Your task to perform on an android device: Clear the cart on target. Search for "usb-b" on target, select the first entry, add it to the cart, then select checkout. Image 0: 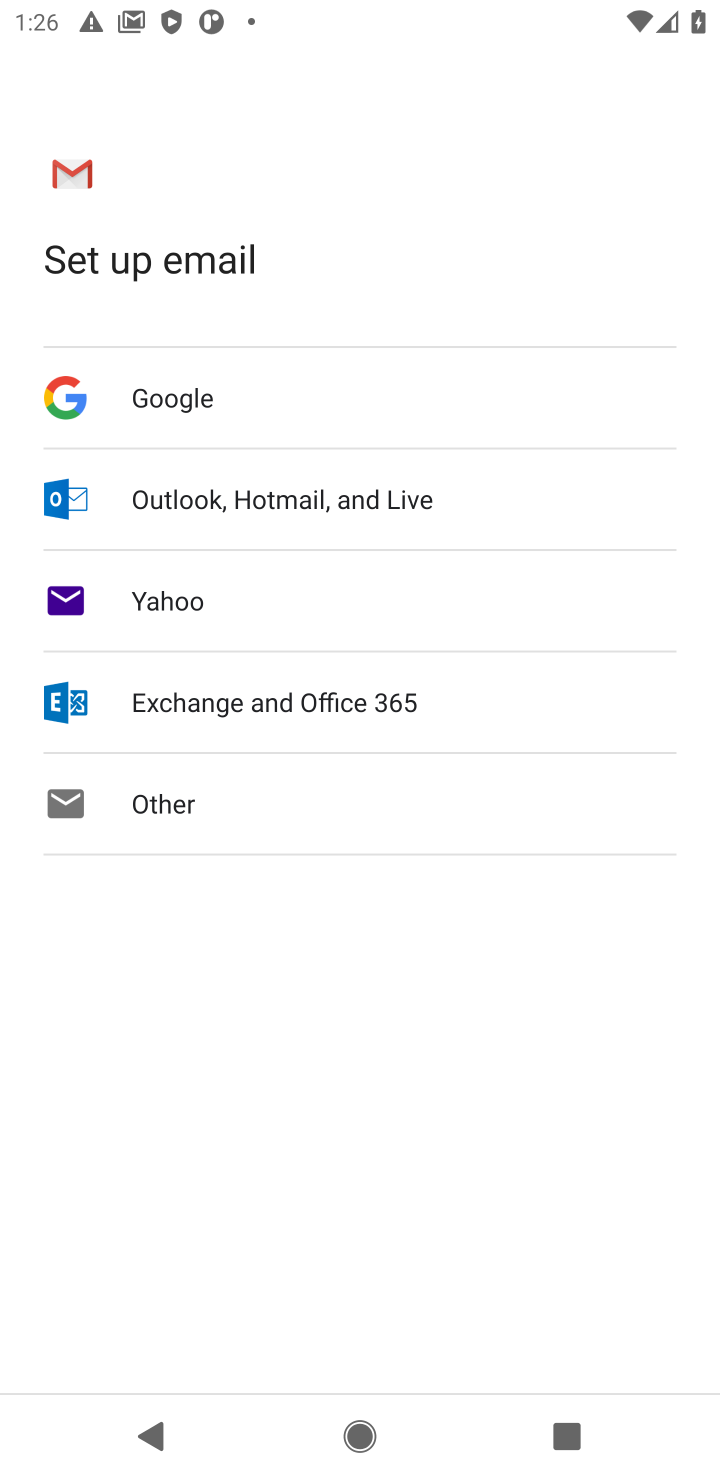
Step 0: press home button
Your task to perform on an android device: Clear the cart on target. Search for "usb-b" on target, select the first entry, add it to the cart, then select checkout. Image 1: 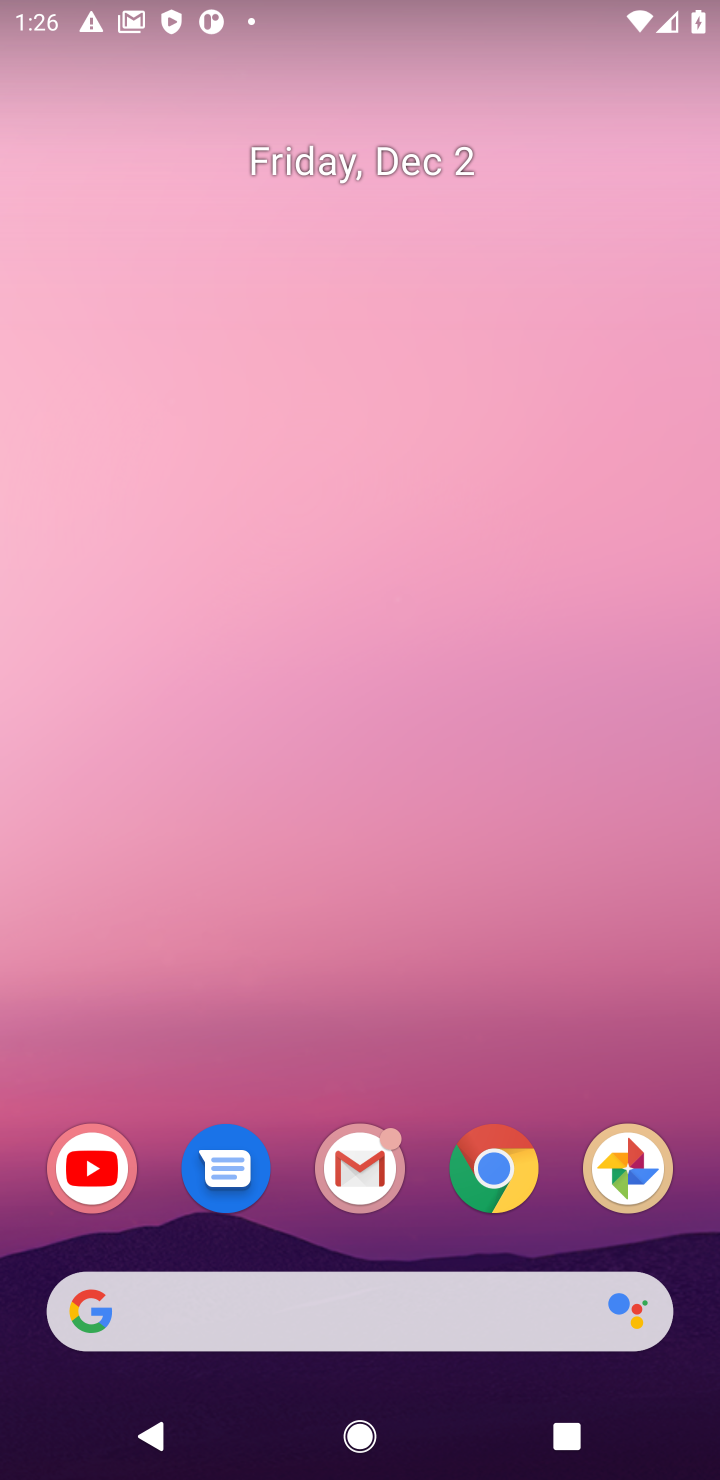
Step 1: click (500, 1179)
Your task to perform on an android device: Clear the cart on target. Search for "usb-b" on target, select the first entry, add it to the cart, then select checkout. Image 2: 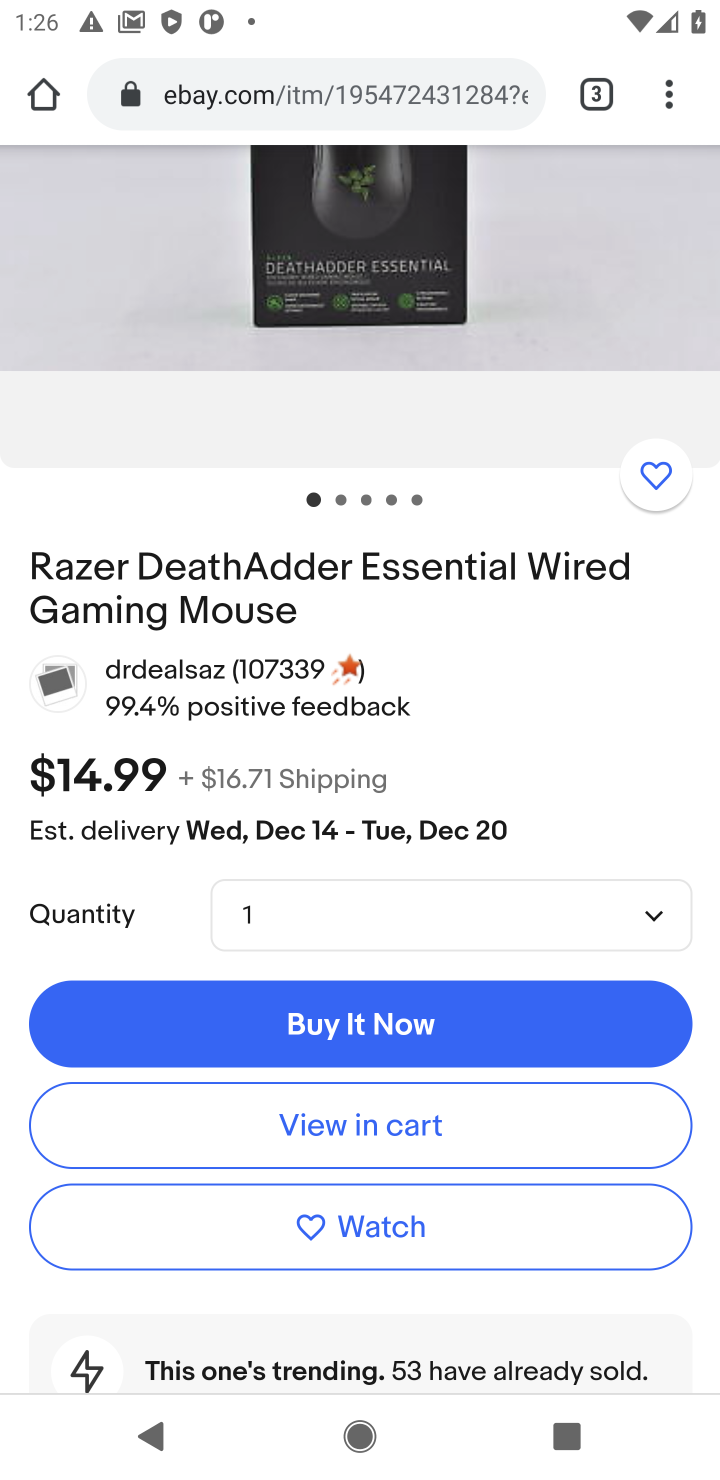
Step 2: click (288, 95)
Your task to perform on an android device: Clear the cart on target. Search for "usb-b" on target, select the first entry, add it to the cart, then select checkout. Image 3: 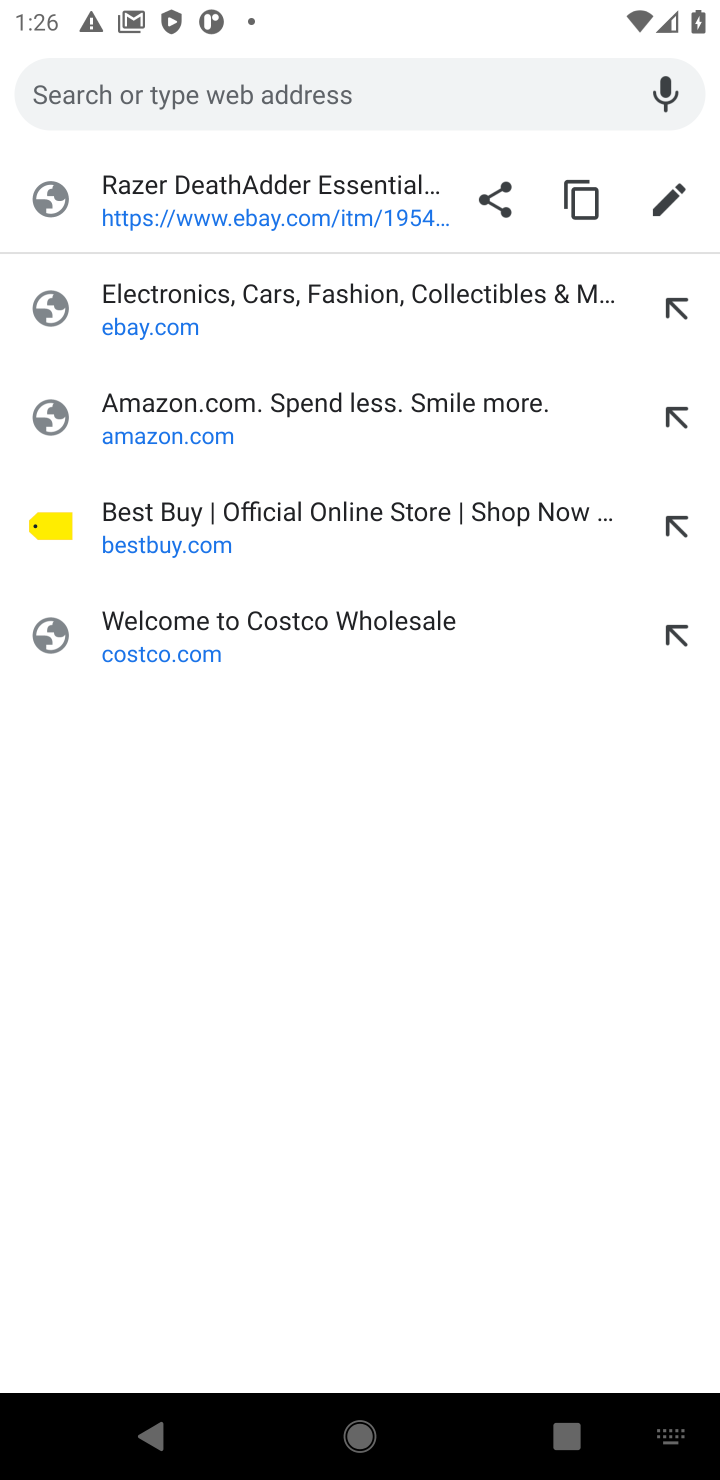
Step 3: type "target.com"
Your task to perform on an android device: Clear the cart on target. Search for "usb-b" on target, select the first entry, add it to the cart, then select checkout. Image 4: 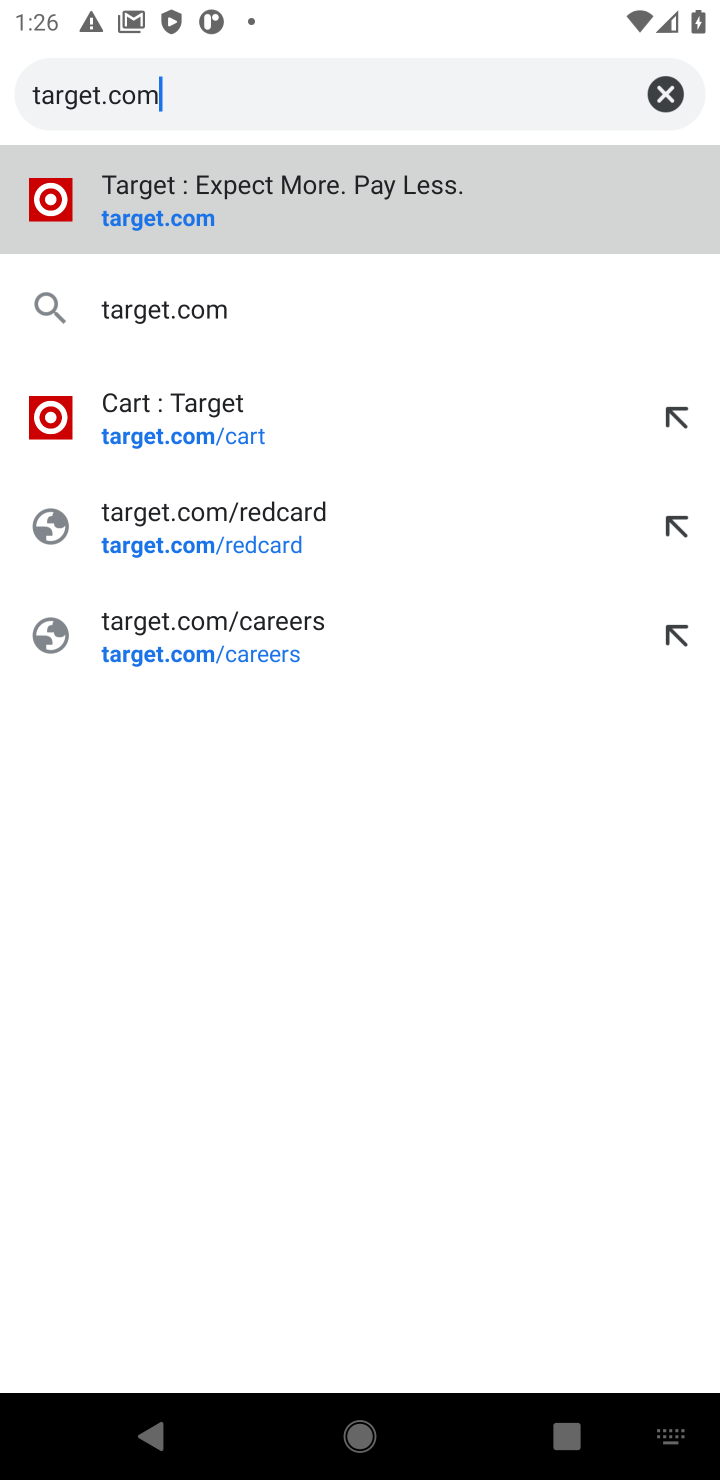
Step 4: click (137, 214)
Your task to perform on an android device: Clear the cart on target. Search for "usb-b" on target, select the first entry, add it to the cart, then select checkout. Image 5: 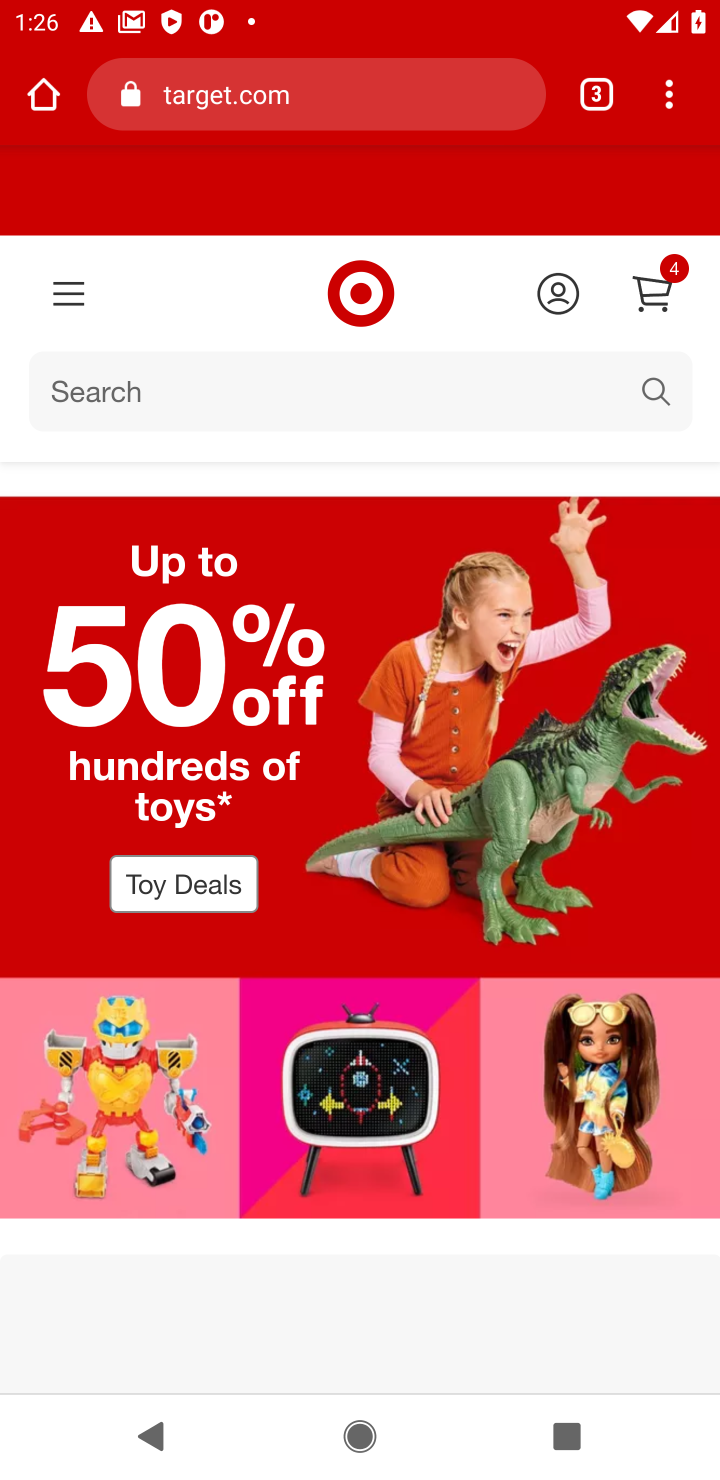
Step 5: click (661, 300)
Your task to perform on an android device: Clear the cart on target. Search for "usb-b" on target, select the first entry, add it to the cart, then select checkout. Image 6: 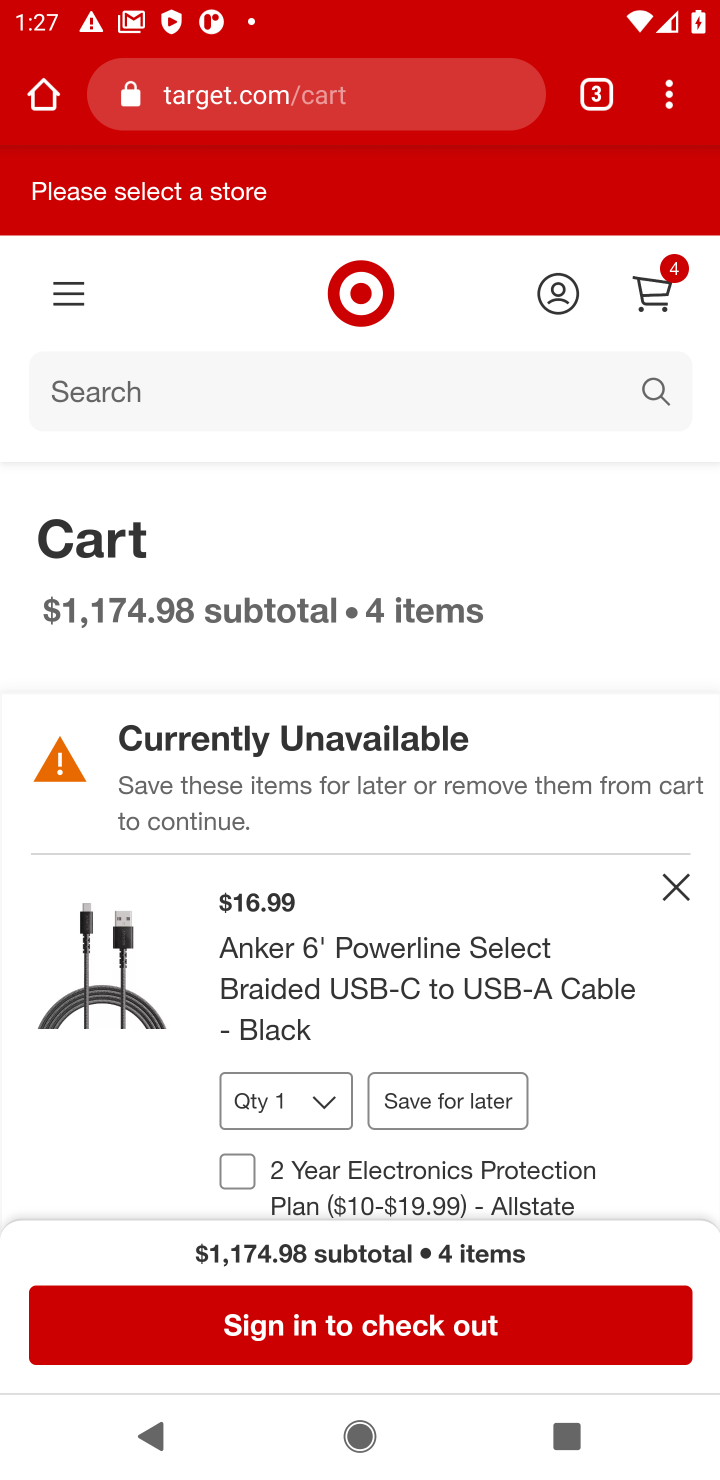
Step 6: click (685, 892)
Your task to perform on an android device: Clear the cart on target. Search for "usb-b" on target, select the first entry, add it to the cart, then select checkout. Image 7: 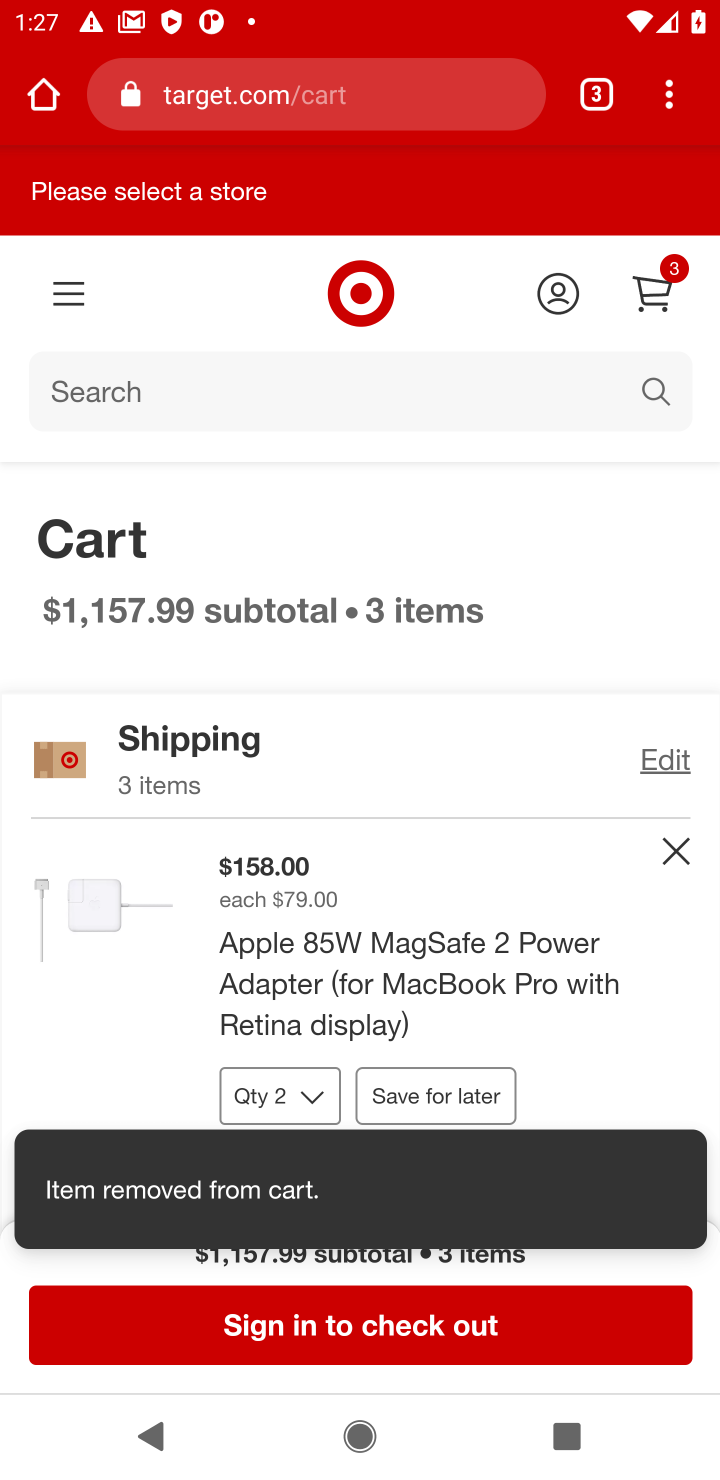
Step 7: click (682, 861)
Your task to perform on an android device: Clear the cart on target. Search for "usb-b" on target, select the first entry, add it to the cart, then select checkout. Image 8: 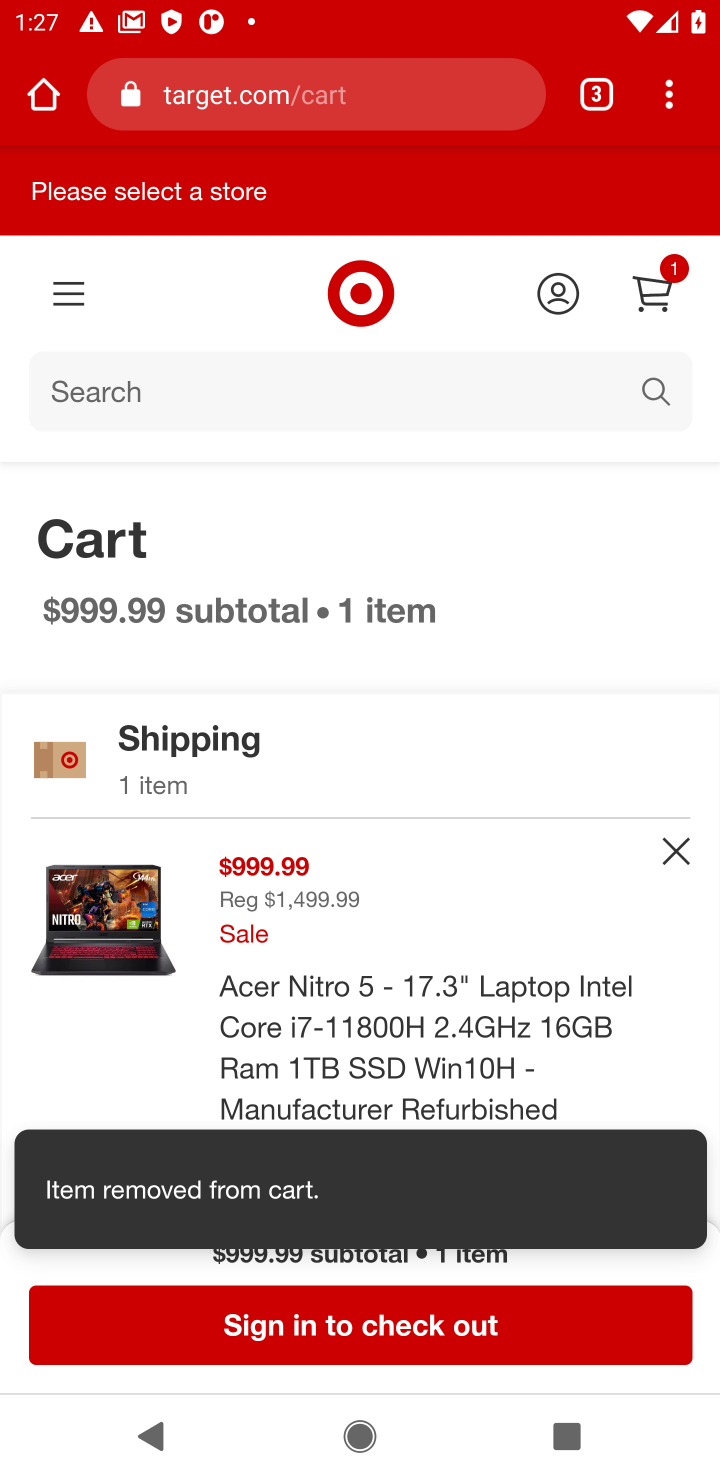
Step 8: click (682, 861)
Your task to perform on an android device: Clear the cart on target. Search for "usb-b" on target, select the first entry, add it to the cart, then select checkout. Image 9: 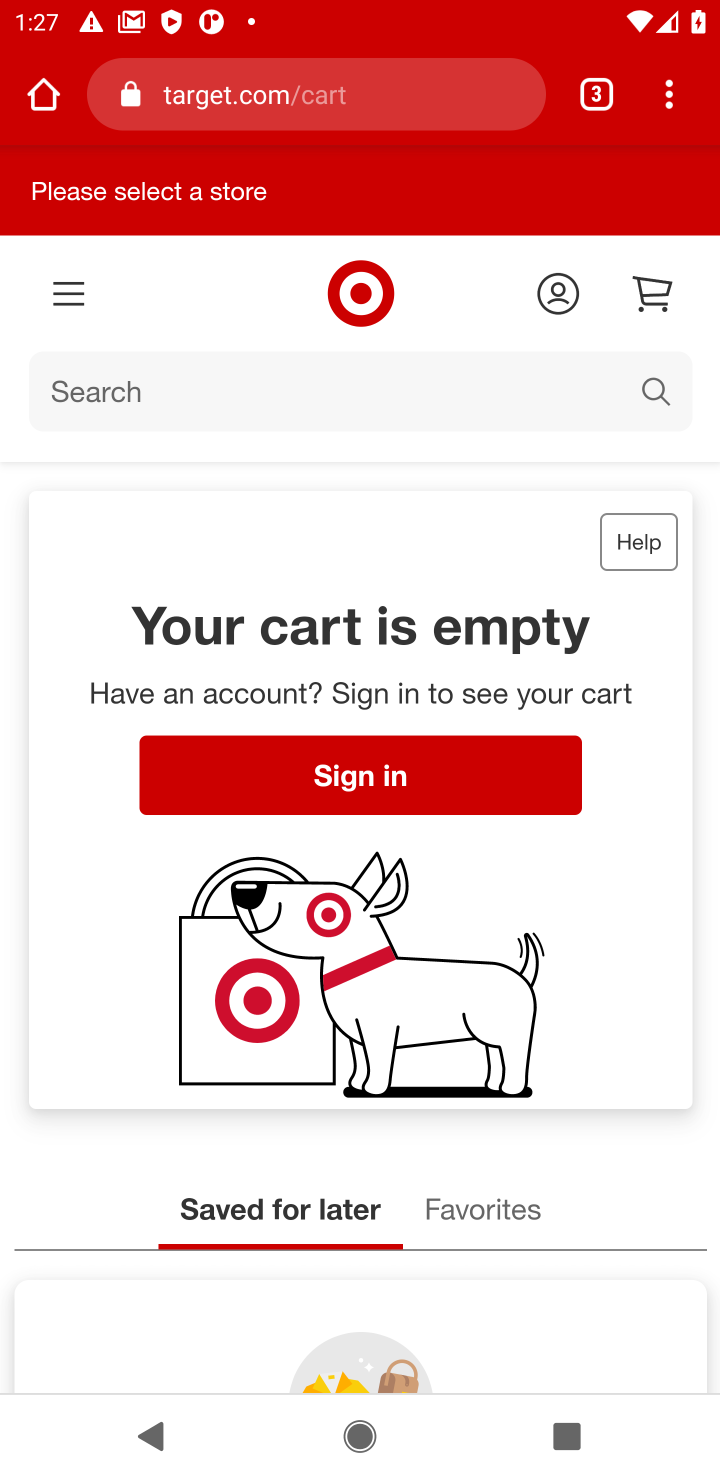
Step 9: click (104, 395)
Your task to perform on an android device: Clear the cart on target. Search for "usb-b" on target, select the first entry, add it to the cart, then select checkout. Image 10: 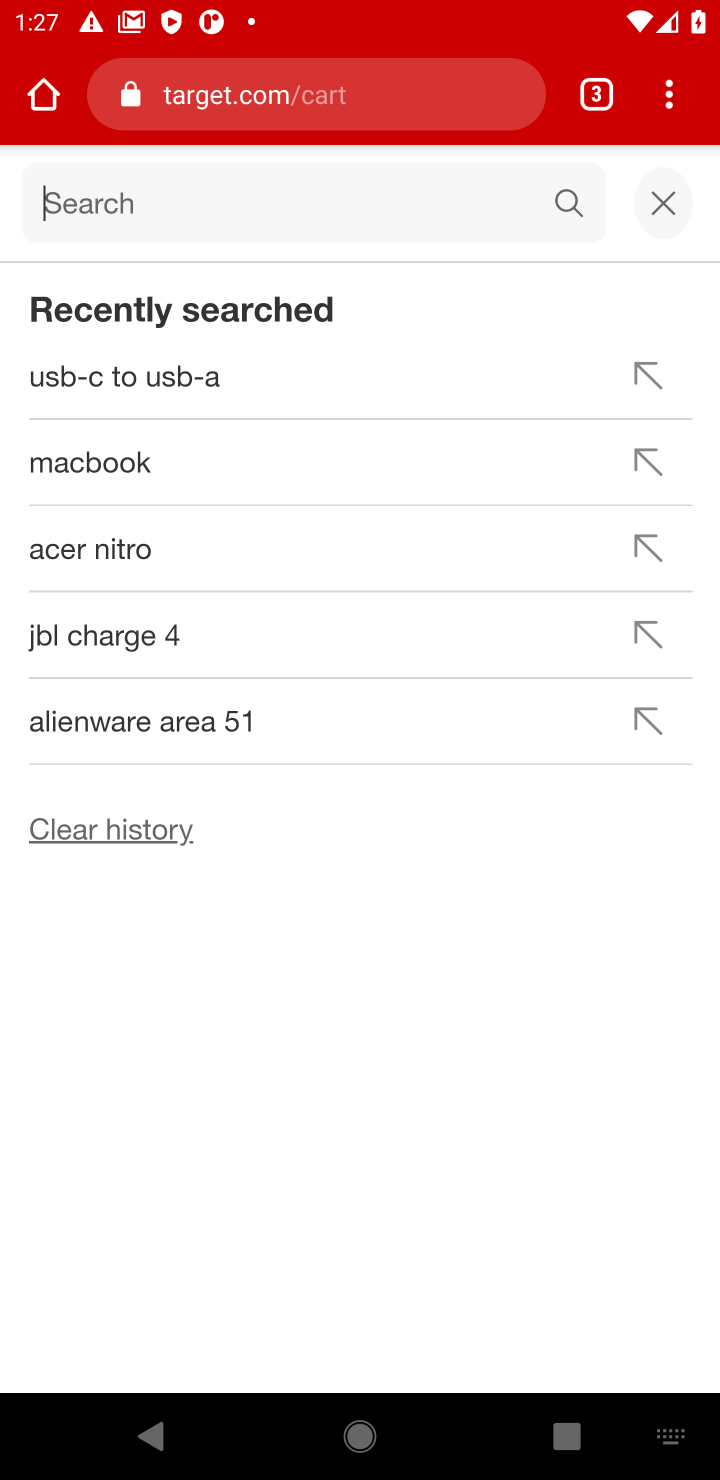
Step 10: type "usb-b"
Your task to perform on an android device: Clear the cart on target. Search for "usb-b" on target, select the first entry, add it to the cart, then select checkout. Image 11: 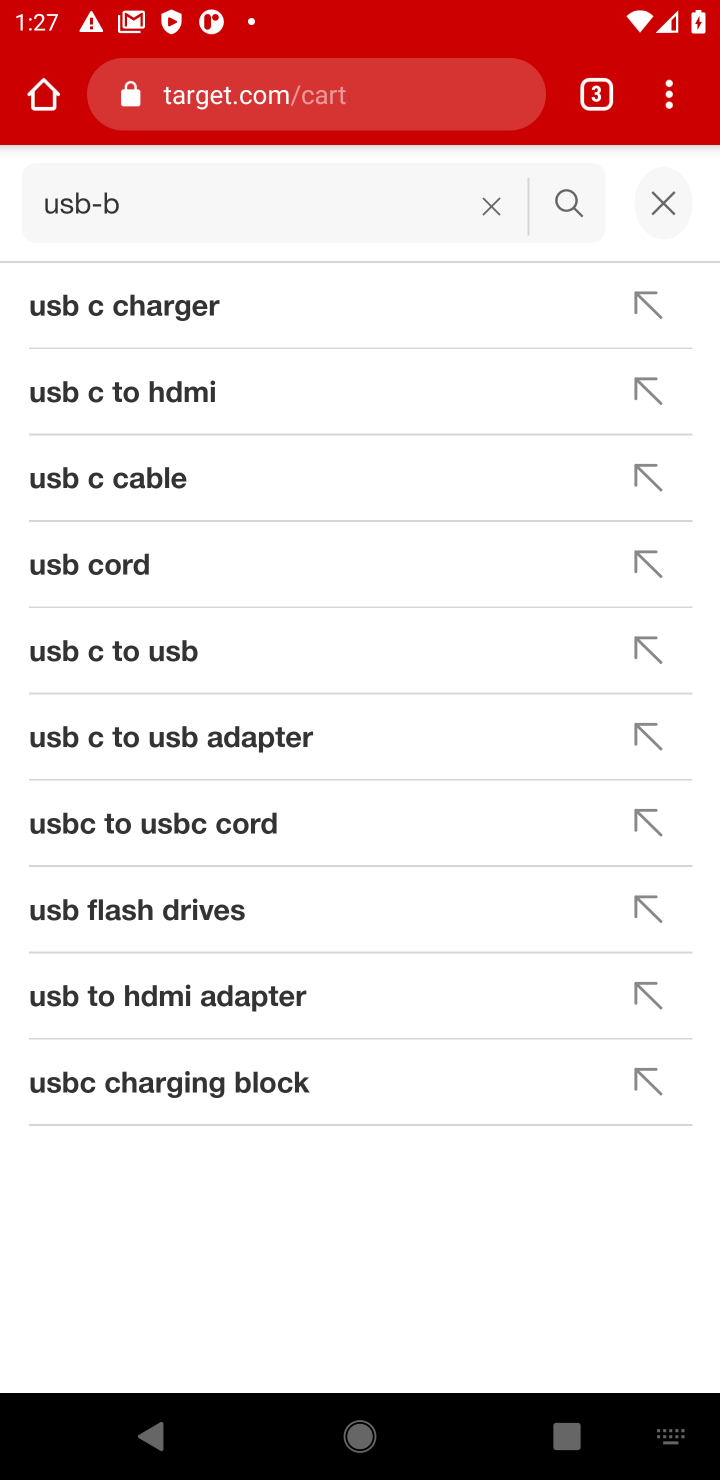
Step 11: click (560, 206)
Your task to perform on an android device: Clear the cart on target. Search for "usb-b" on target, select the first entry, add it to the cart, then select checkout. Image 12: 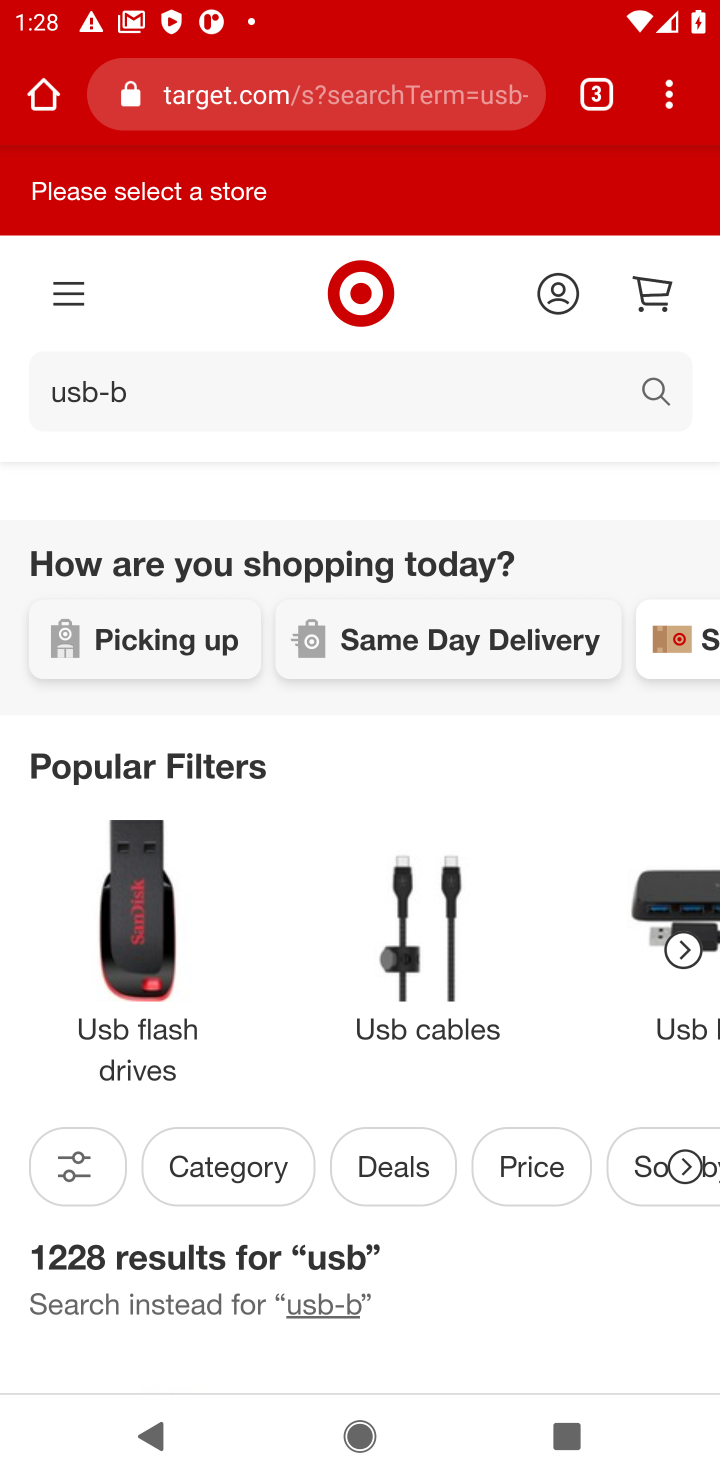
Step 12: task complete